Your task to perform on an android device: Go to internet settings Image 0: 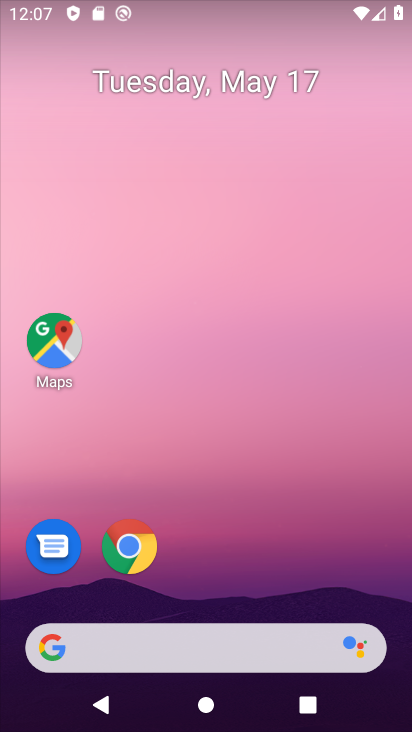
Step 0: drag from (320, 547) to (271, 27)
Your task to perform on an android device: Go to internet settings Image 1: 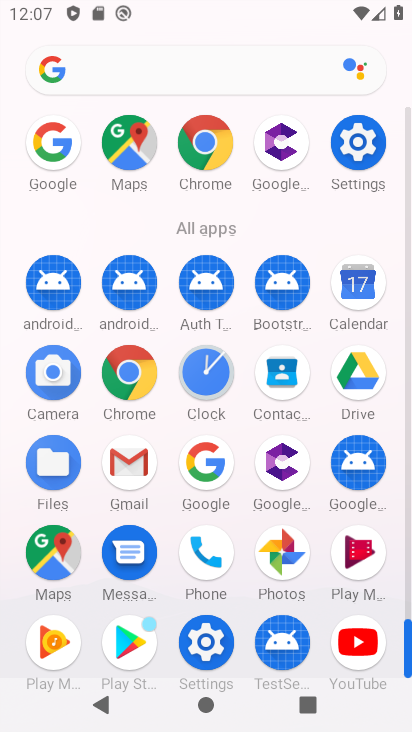
Step 1: click (352, 145)
Your task to perform on an android device: Go to internet settings Image 2: 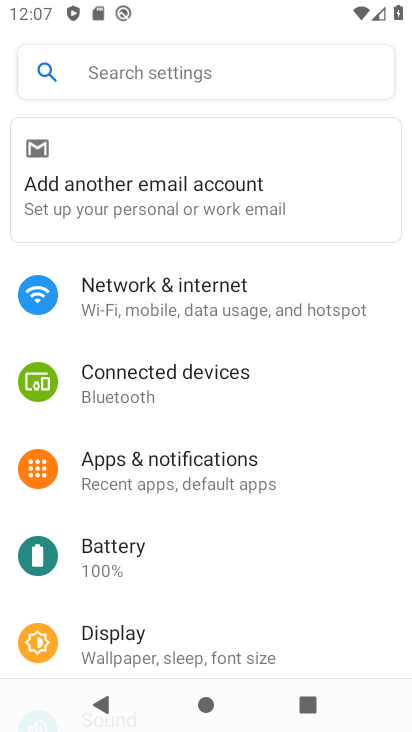
Step 2: click (116, 305)
Your task to perform on an android device: Go to internet settings Image 3: 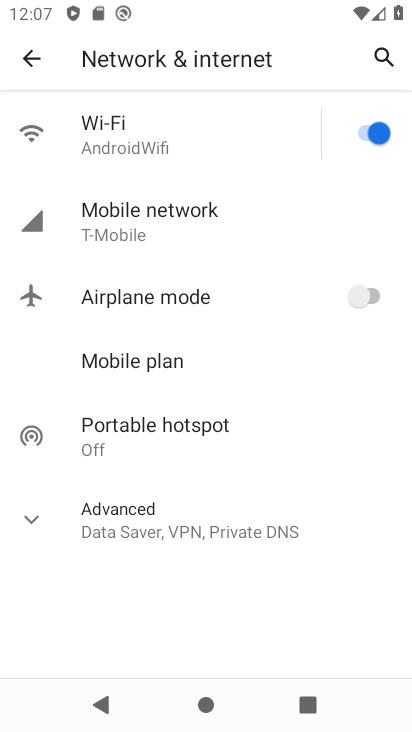
Step 3: click (153, 199)
Your task to perform on an android device: Go to internet settings Image 4: 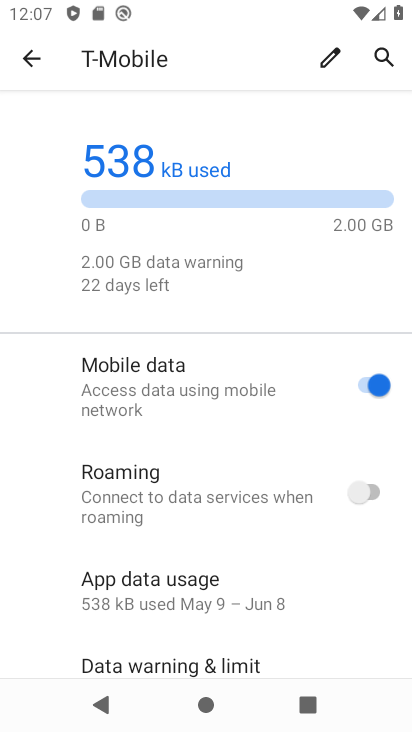
Step 4: task complete